Your task to perform on an android device: visit the assistant section in the google photos Image 0: 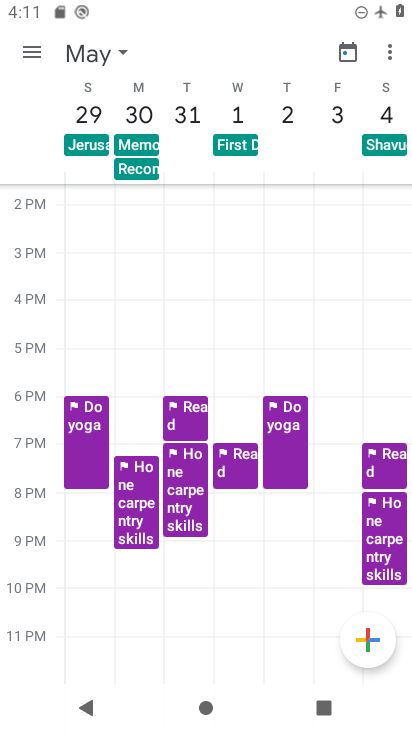
Step 0: press home button
Your task to perform on an android device: visit the assistant section in the google photos Image 1: 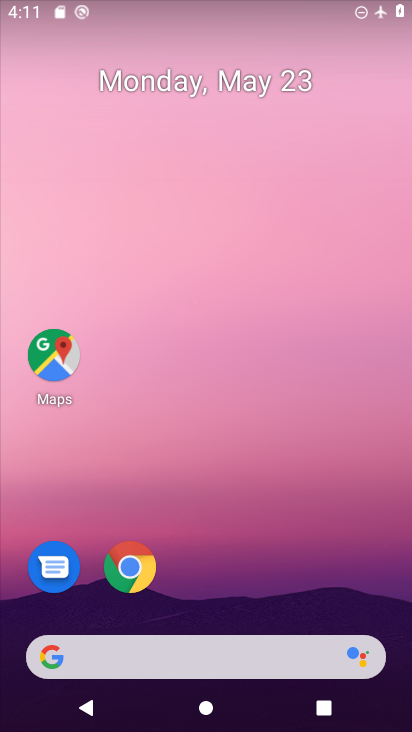
Step 1: drag from (392, 615) to (315, 42)
Your task to perform on an android device: visit the assistant section in the google photos Image 2: 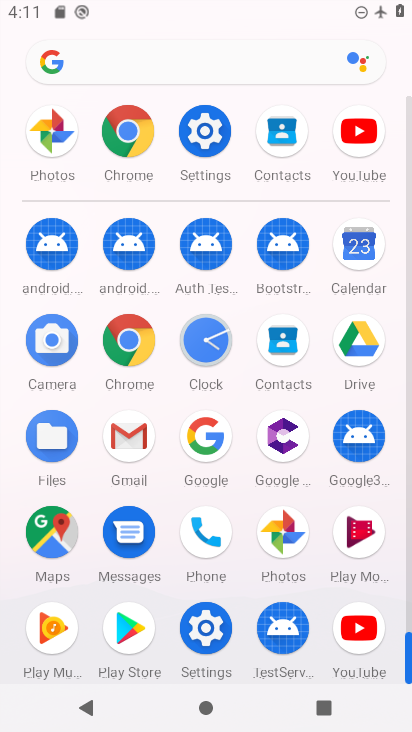
Step 2: click (282, 531)
Your task to perform on an android device: visit the assistant section in the google photos Image 3: 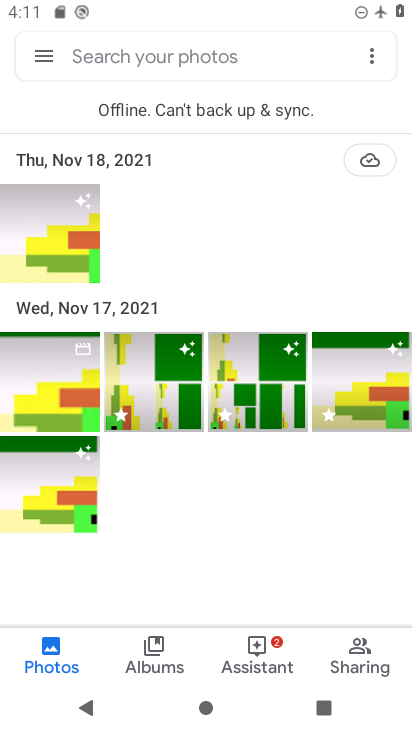
Step 3: click (254, 655)
Your task to perform on an android device: visit the assistant section in the google photos Image 4: 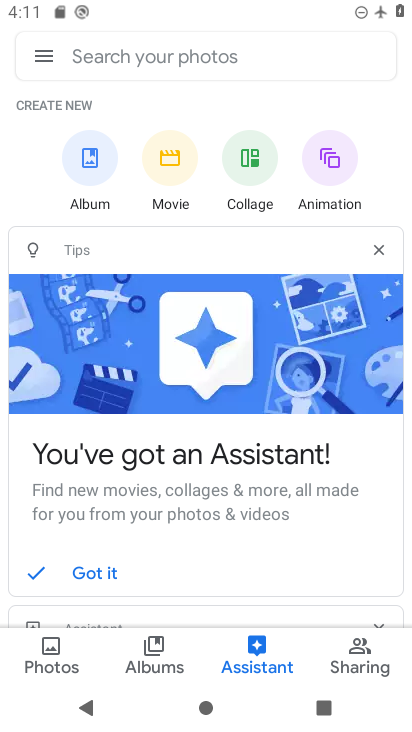
Step 4: drag from (236, 573) to (265, 240)
Your task to perform on an android device: visit the assistant section in the google photos Image 5: 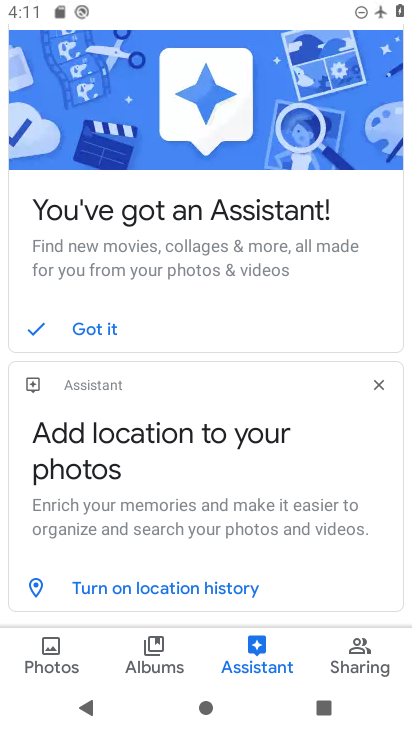
Step 5: click (81, 331)
Your task to perform on an android device: visit the assistant section in the google photos Image 6: 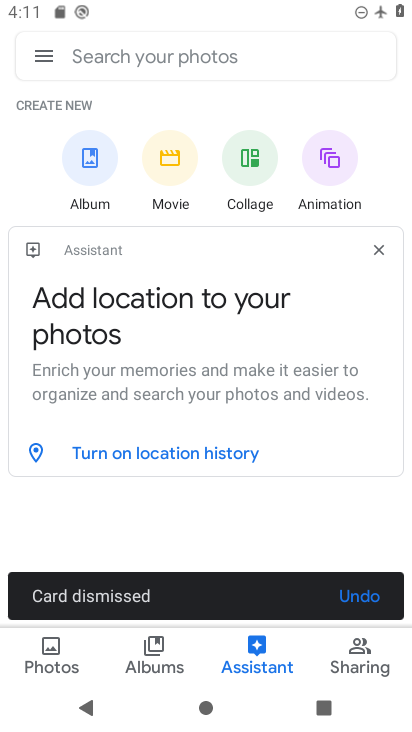
Step 6: task complete